Your task to perform on an android device: star an email in the gmail app Image 0: 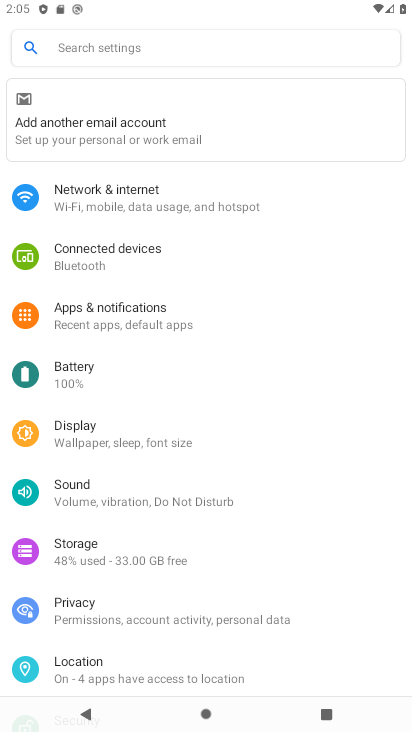
Step 0: press home button
Your task to perform on an android device: star an email in the gmail app Image 1: 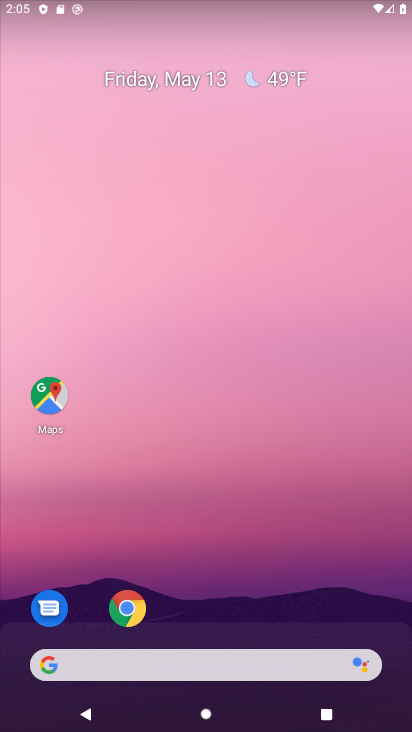
Step 1: drag from (185, 682) to (227, 203)
Your task to perform on an android device: star an email in the gmail app Image 2: 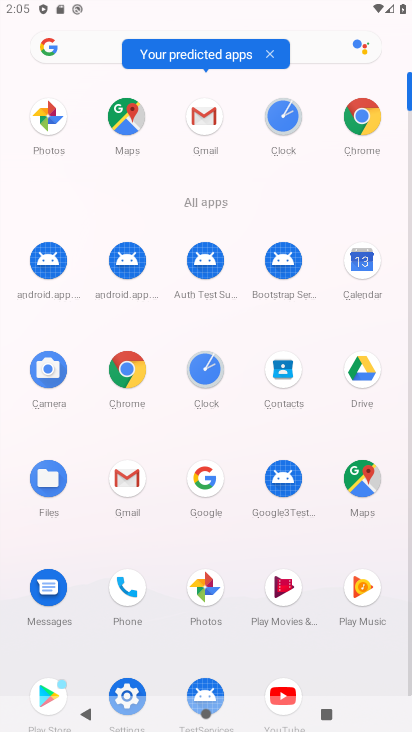
Step 2: click (200, 121)
Your task to perform on an android device: star an email in the gmail app Image 3: 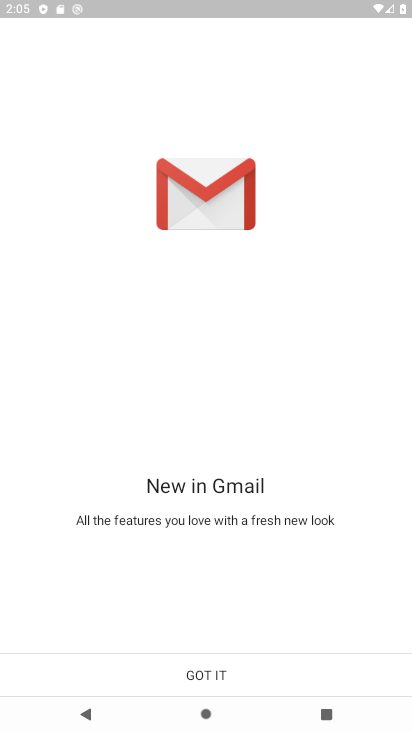
Step 3: click (198, 678)
Your task to perform on an android device: star an email in the gmail app Image 4: 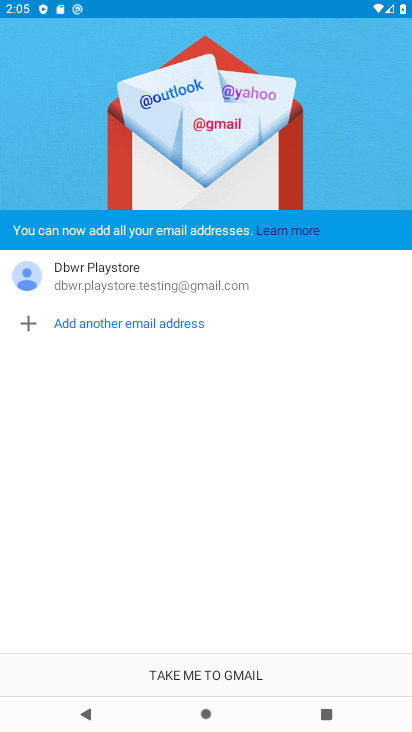
Step 4: click (202, 679)
Your task to perform on an android device: star an email in the gmail app Image 5: 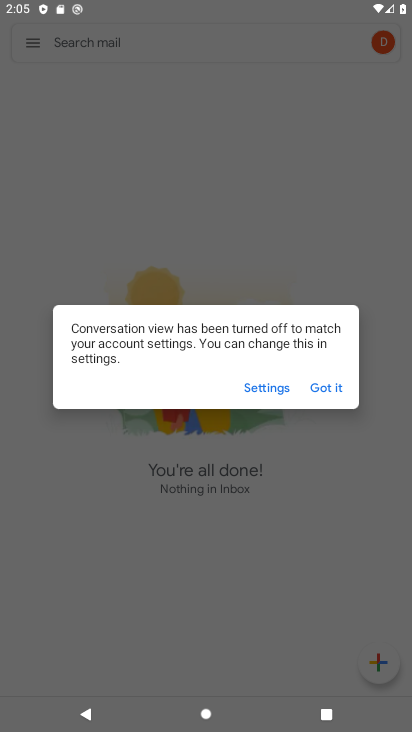
Step 5: click (323, 392)
Your task to perform on an android device: star an email in the gmail app Image 6: 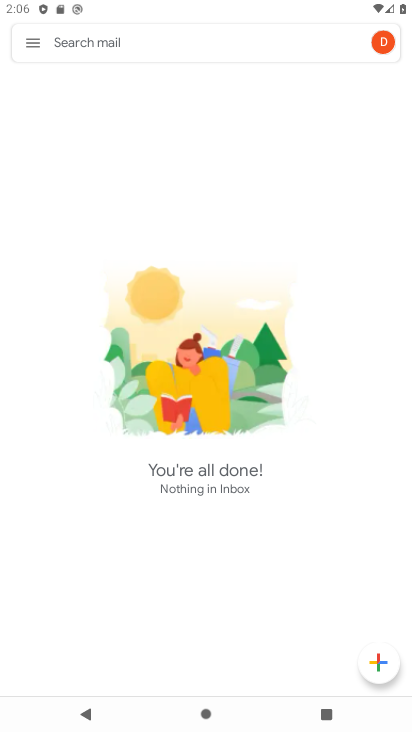
Step 6: click (31, 50)
Your task to perform on an android device: star an email in the gmail app Image 7: 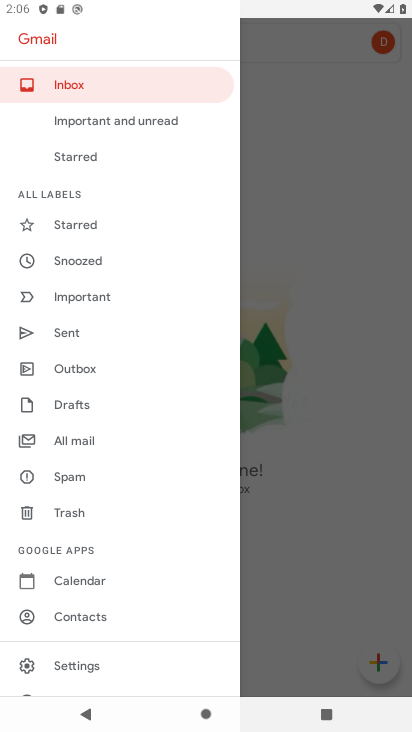
Step 7: click (97, 436)
Your task to perform on an android device: star an email in the gmail app Image 8: 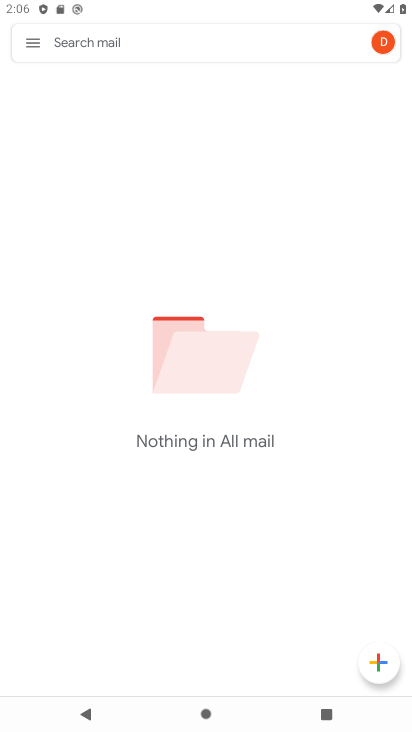
Step 8: task complete